Your task to perform on an android device: Search for Mexican restaurants on Maps Image 0: 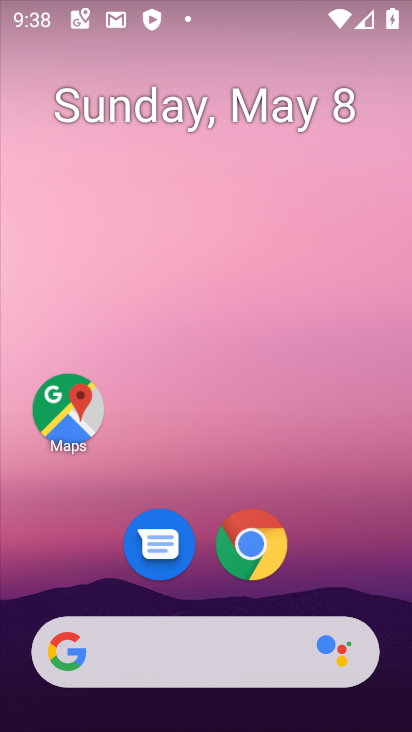
Step 0: drag from (355, 546) to (355, 190)
Your task to perform on an android device: Search for Mexican restaurants on Maps Image 1: 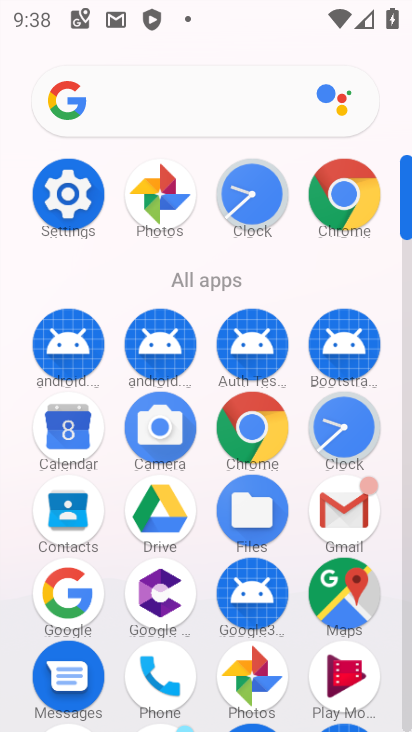
Step 1: click (331, 599)
Your task to perform on an android device: Search for Mexican restaurants on Maps Image 2: 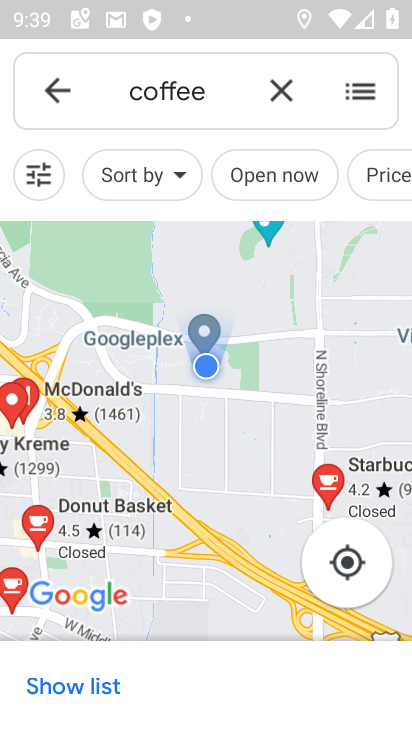
Step 2: click (273, 80)
Your task to perform on an android device: Search for Mexican restaurants on Maps Image 3: 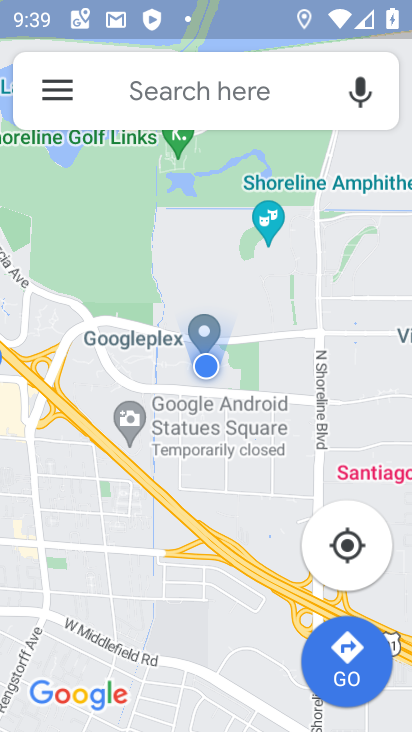
Step 3: click (273, 80)
Your task to perform on an android device: Search for Mexican restaurants on Maps Image 4: 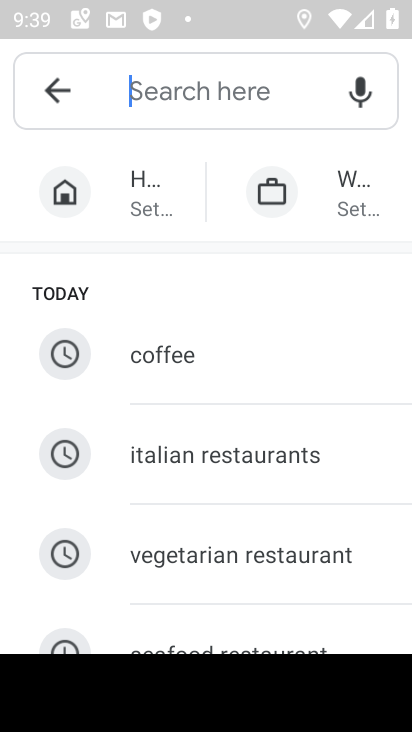
Step 4: type "mexican"
Your task to perform on an android device: Search for Mexican restaurants on Maps Image 5: 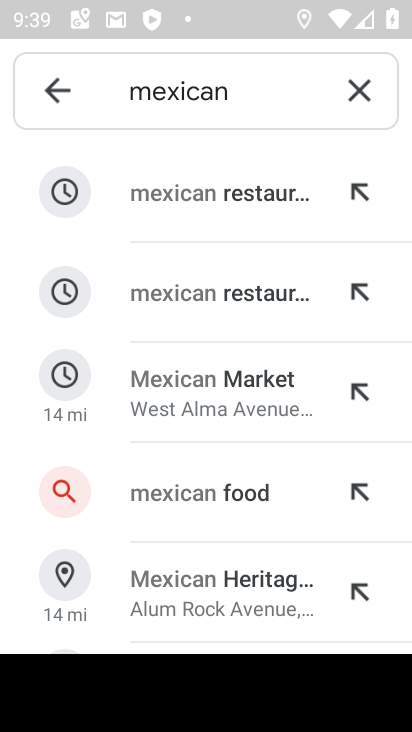
Step 5: click (161, 176)
Your task to perform on an android device: Search for Mexican restaurants on Maps Image 6: 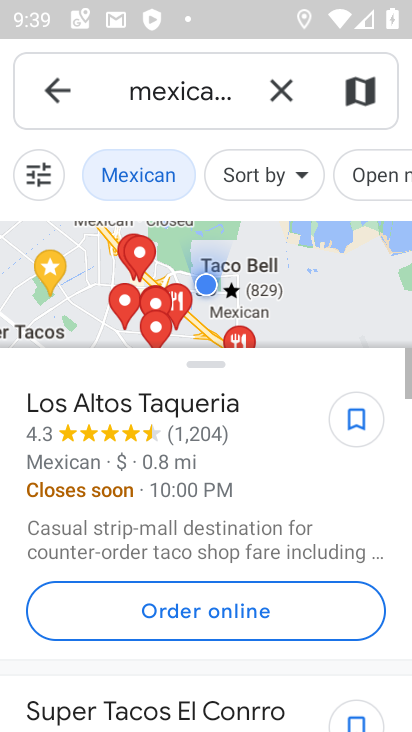
Step 6: task complete